Your task to perform on an android device: Open privacy settings Image 0: 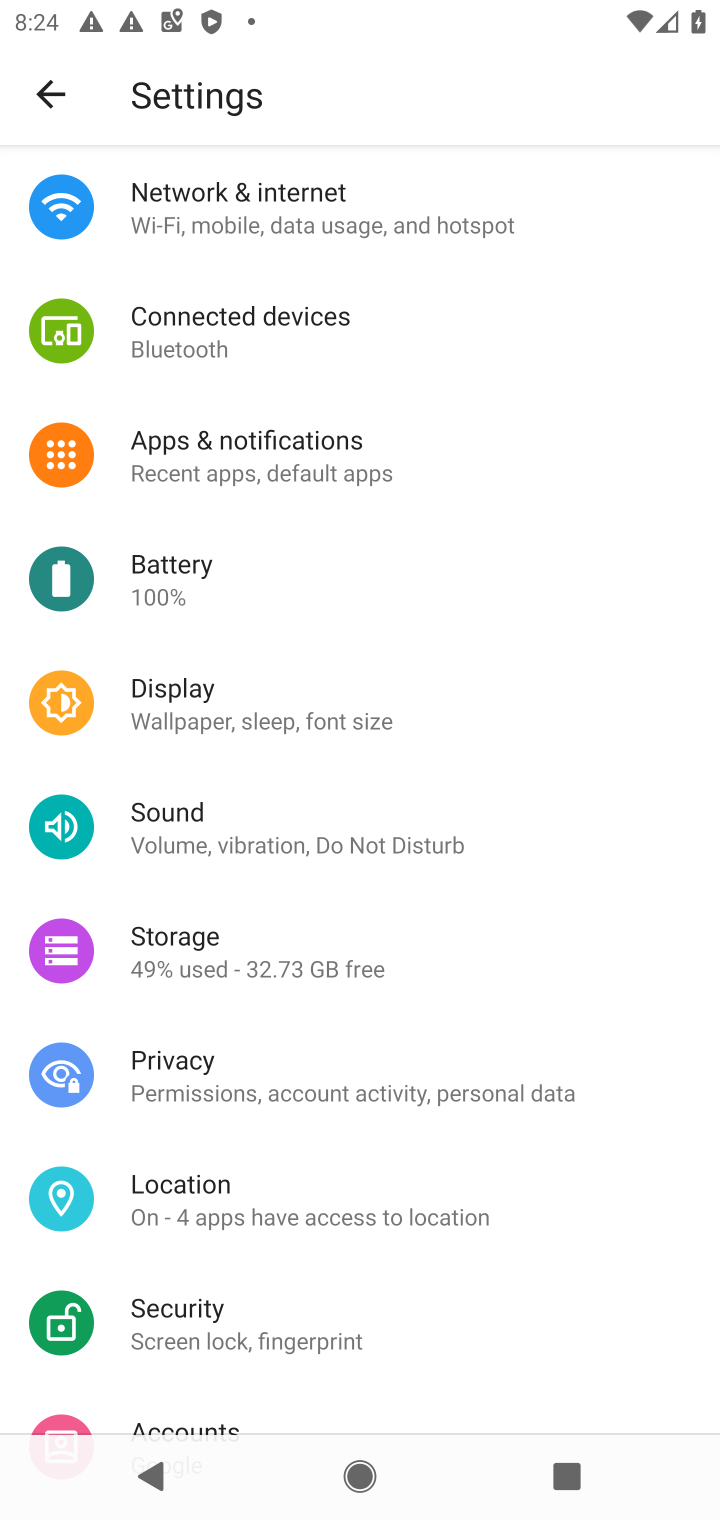
Step 0: click (214, 1087)
Your task to perform on an android device: Open privacy settings Image 1: 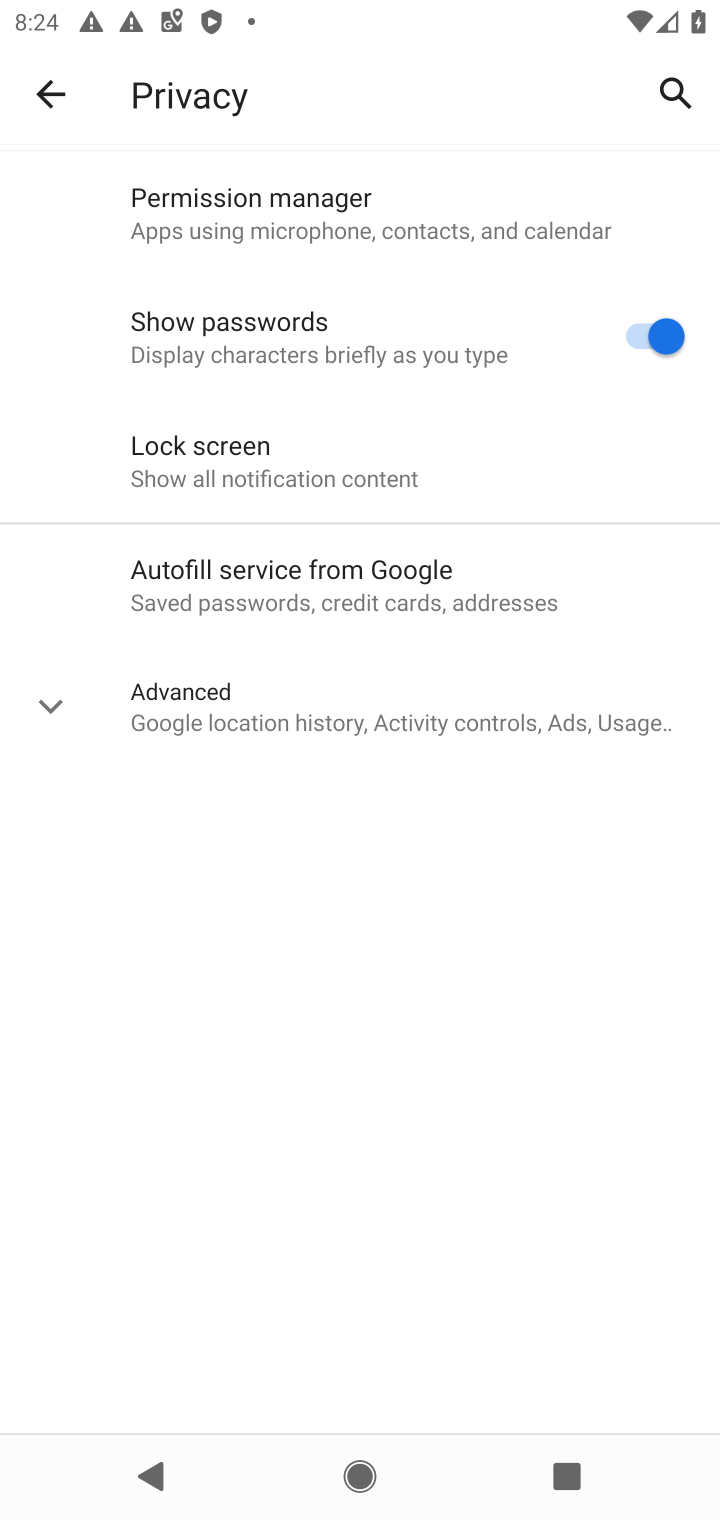
Step 1: click (161, 655)
Your task to perform on an android device: Open privacy settings Image 2: 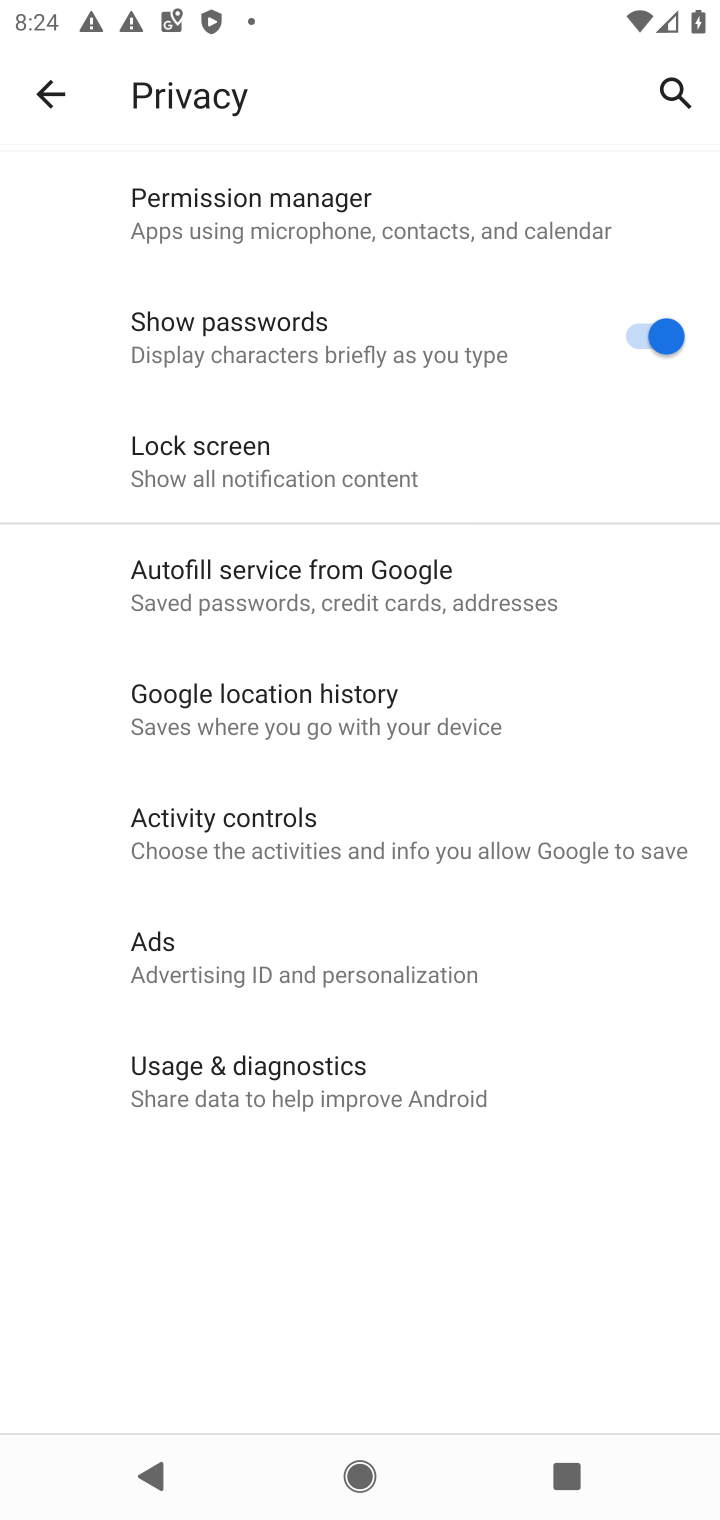
Step 2: task complete